Your task to perform on an android device: turn pop-ups on in chrome Image 0: 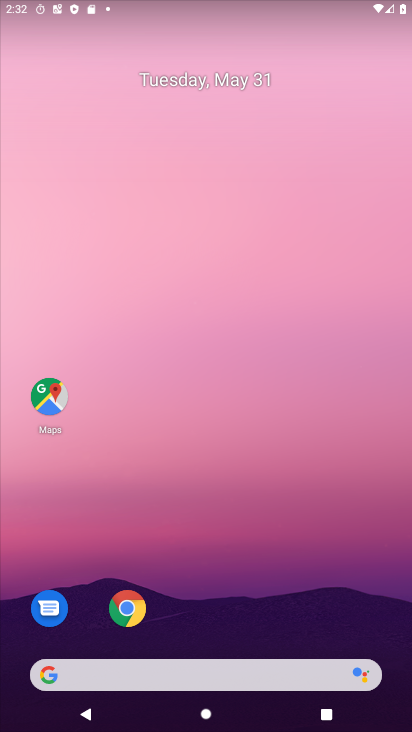
Step 0: drag from (212, 633) to (216, 500)
Your task to perform on an android device: turn pop-ups on in chrome Image 1: 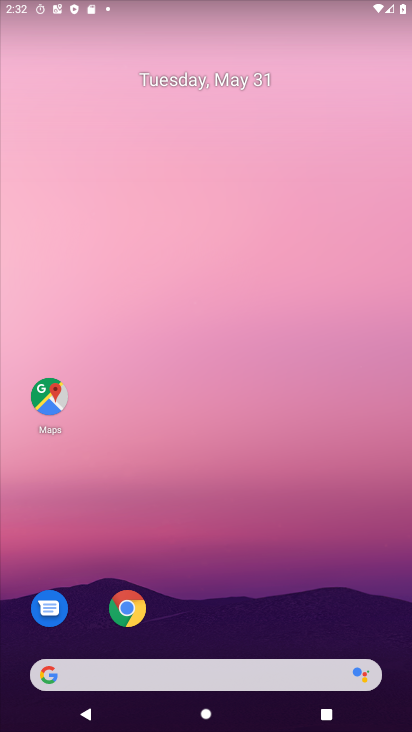
Step 1: click (139, 614)
Your task to perform on an android device: turn pop-ups on in chrome Image 2: 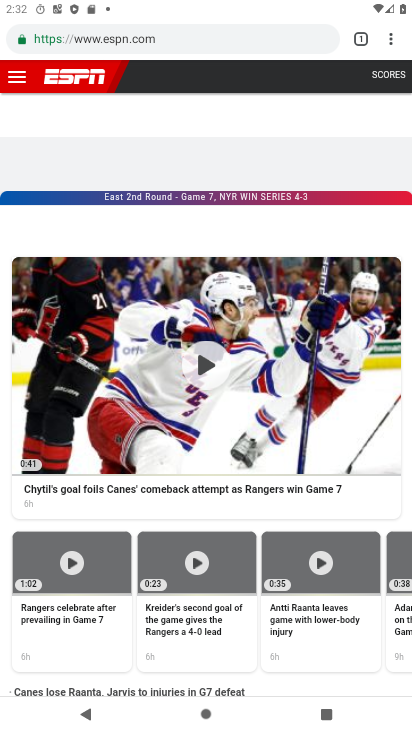
Step 2: click (390, 39)
Your task to perform on an android device: turn pop-ups on in chrome Image 3: 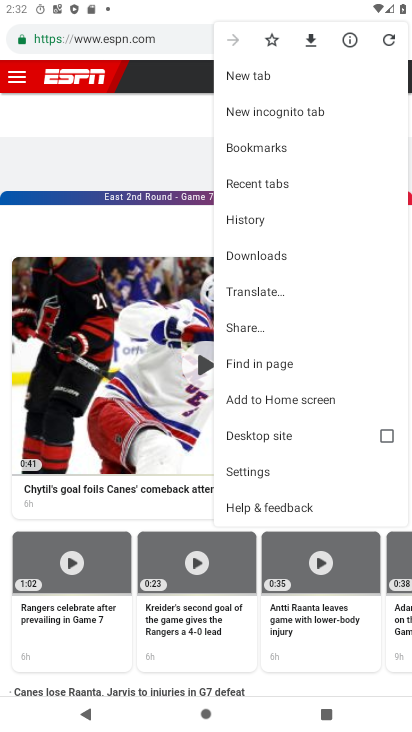
Step 3: click (248, 466)
Your task to perform on an android device: turn pop-ups on in chrome Image 4: 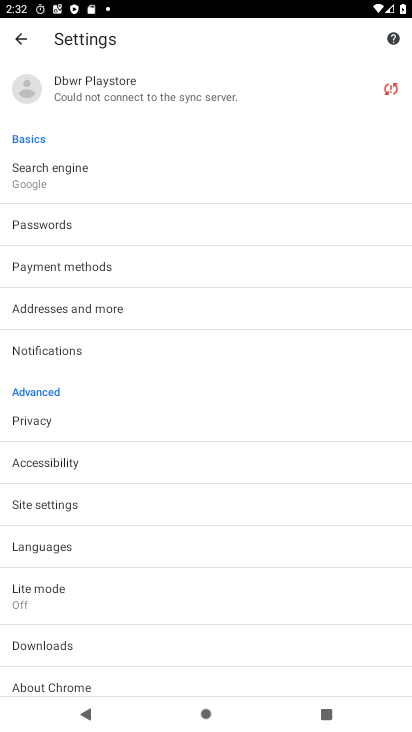
Step 4: click (71, 511)
Your task to perform on an android device: turn pop-ups on in chrome Image 5: 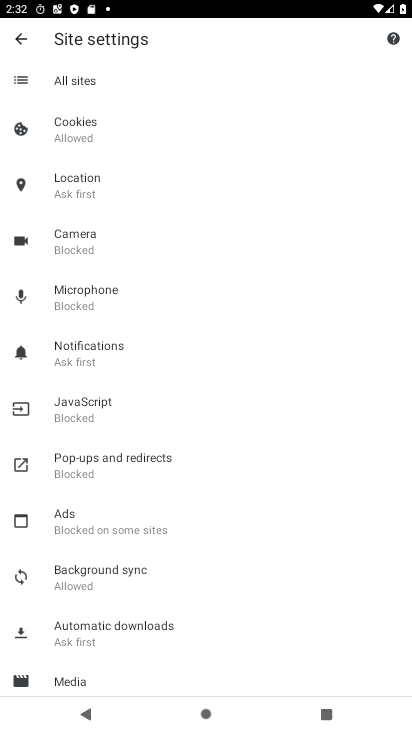
Step 5: click (104, 454)
Your task to perform on an android device: turn pop-ups on in chrome Image 6: 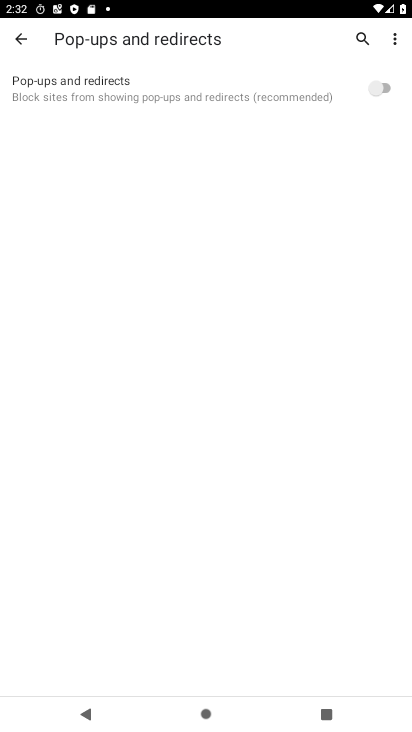
Step 6: click (388, 79)
Your task to perform on an android device: turn pop-ups on in chrome Image 7: 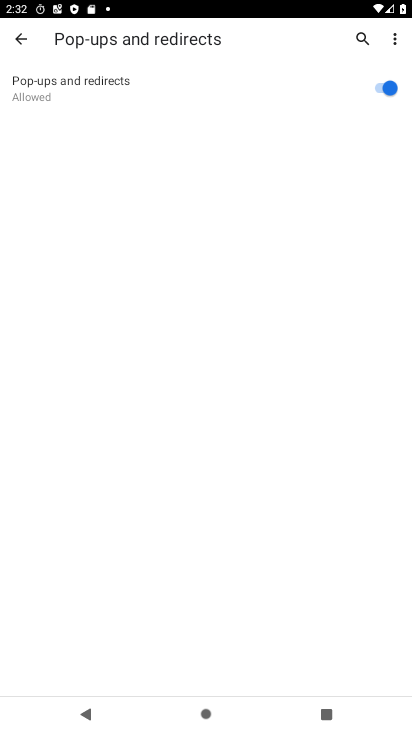
Step 7: task complete